Your task to perform on an android device: Search for bose soundlink mini on newegg, select the first entry, and add it to the cart. Image 0: 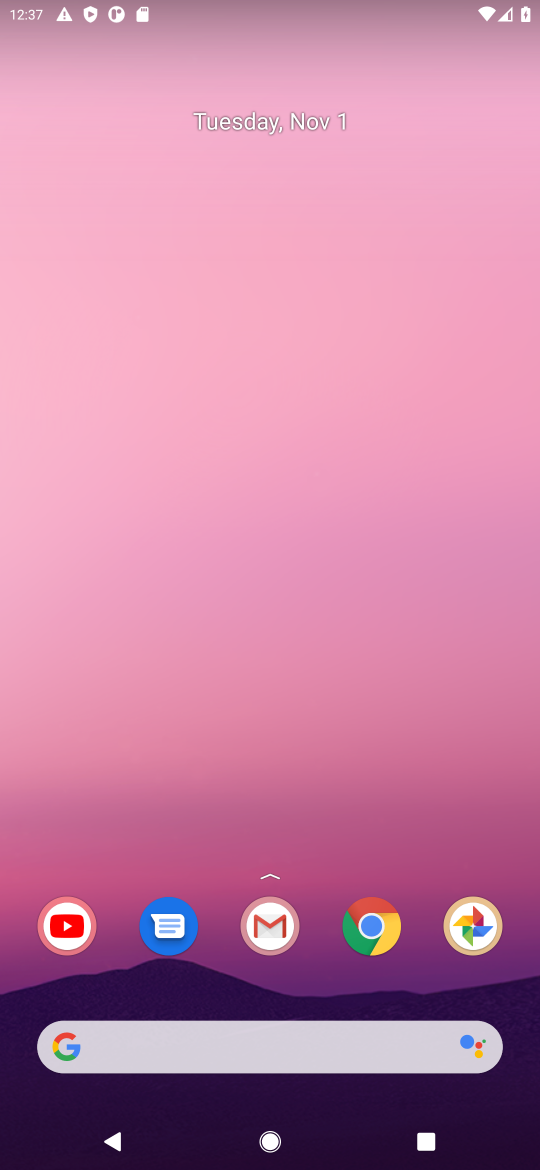
Step 0: click (367, 927)
Your task to perform on an android device: Search for bose soundlink mini on newegg, select the first entry, and add it to the cart. Image 1: 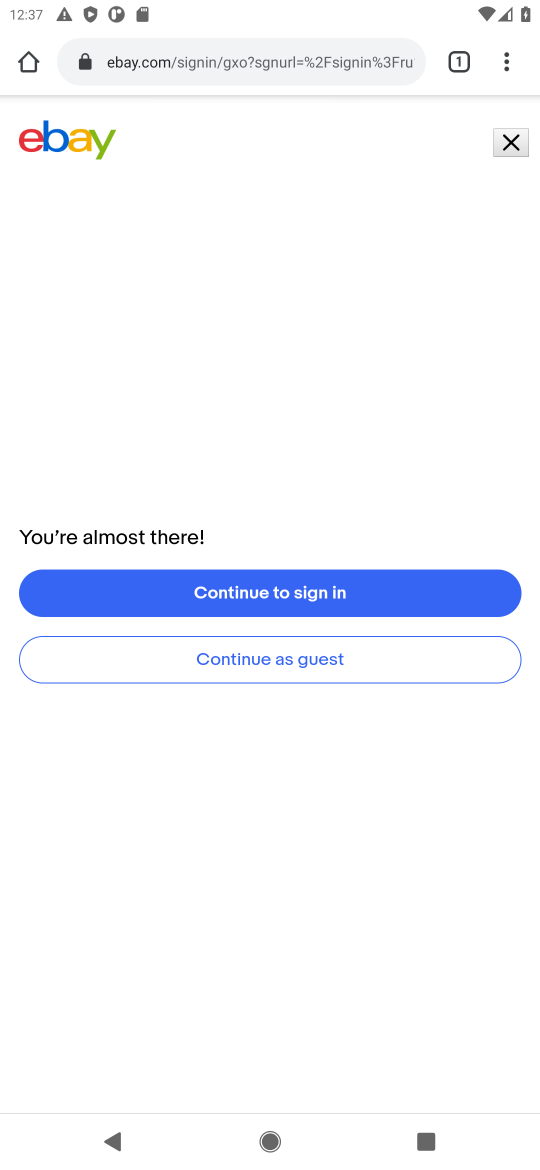
Step 1: click (515, 146)
Your task to perform on an android device: Search for bose soundlink mini on newegg, select the first entry, and add it to the cart. Image 2: 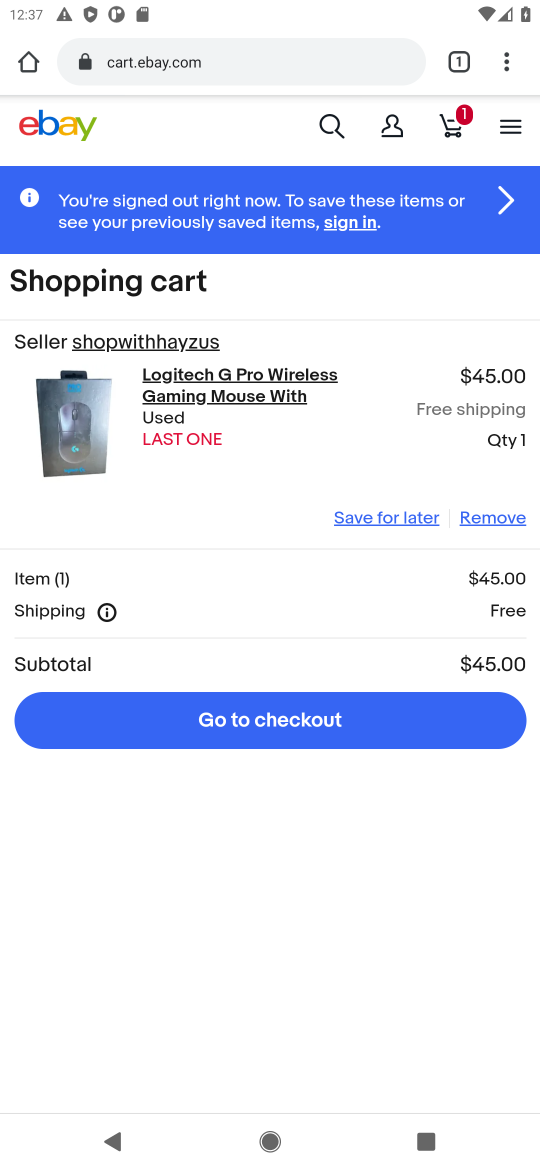
Step 2: click (289, 51)
Your task to perform on an android device: Search for bose soundlink mini on newegg, select the first entry, and add it to the cart. Image 3: 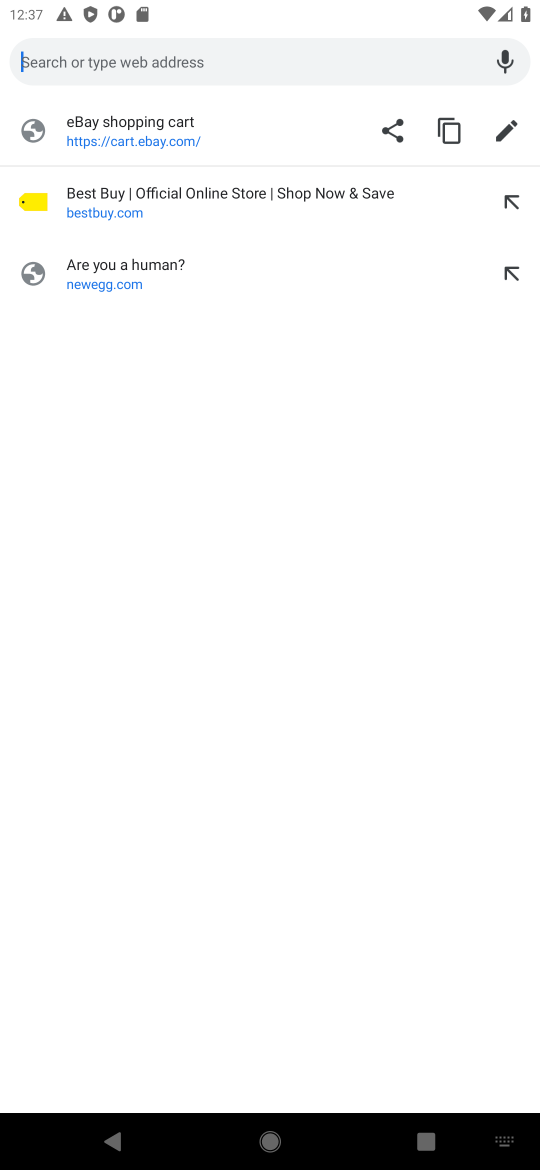
Step 3: type "newegg"
Your task to perform on an android device: Search for bose soundlink mini on newegg, select the first entry, and add it to the cart. Image 4: 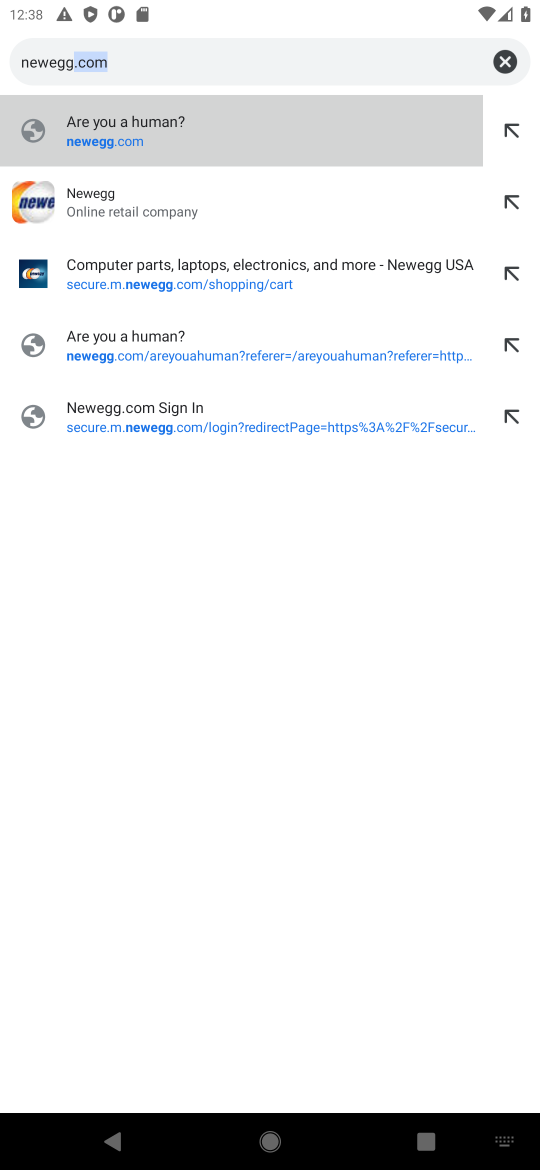
Step 4: press enter
Your task to perform on an android device: Search for bose soundlink mini on newegg, select the first entry, and add it to the cart. Image 5: 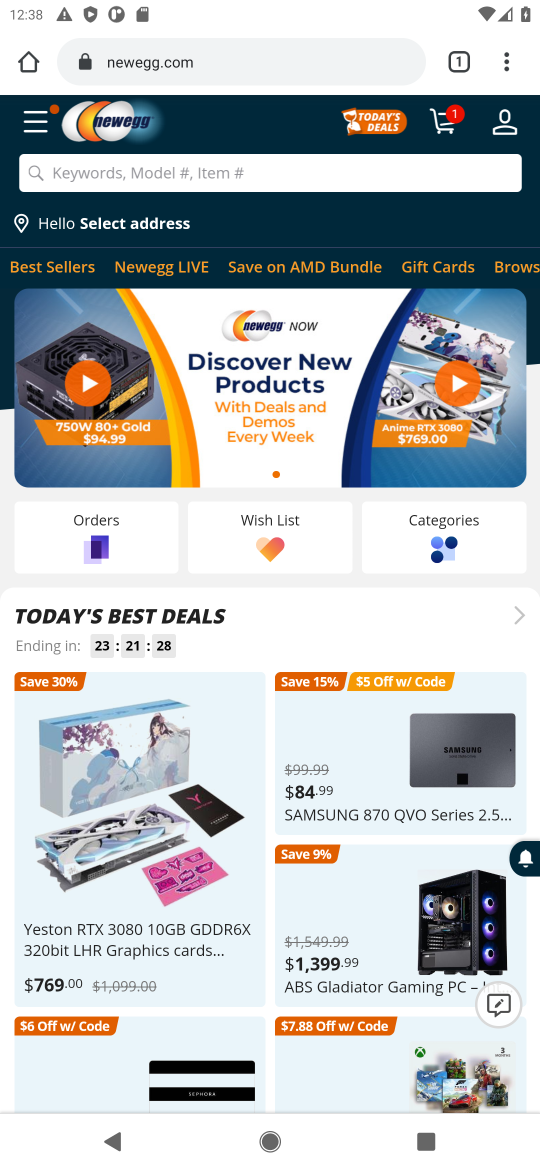
Step 5: click (198, 174)
Your task to perform on an android device: Search for bose soundlink mini on newegg, select the first entry, and add it to the cart. Image 6: 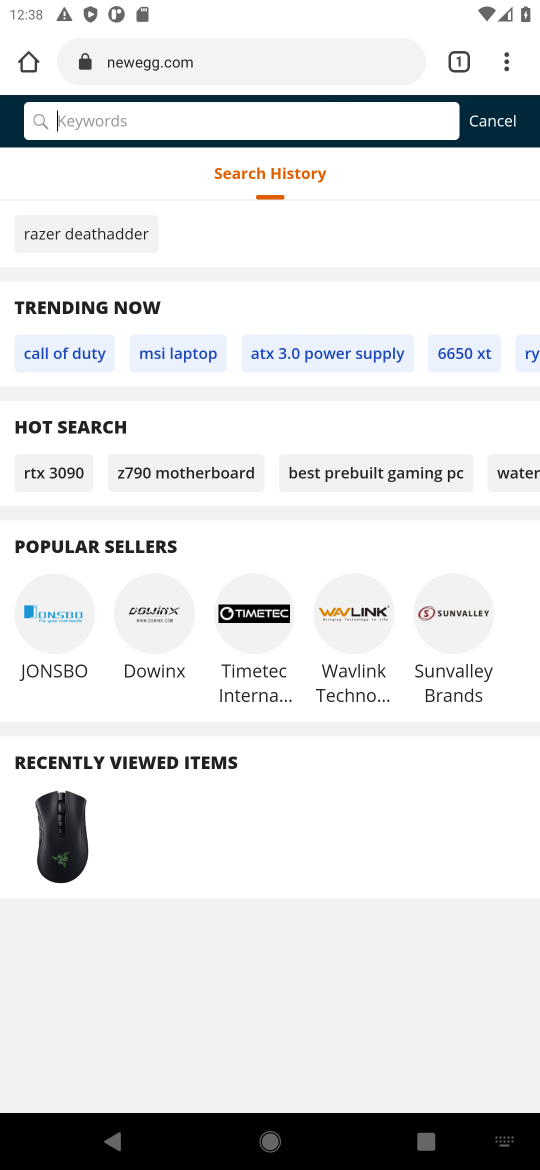
Step 6: type "soundlink mini"
Your task to perform on an android device: Search for bose soundlink mini on newegg, select the first entry, and add it to the cart. Image 7: 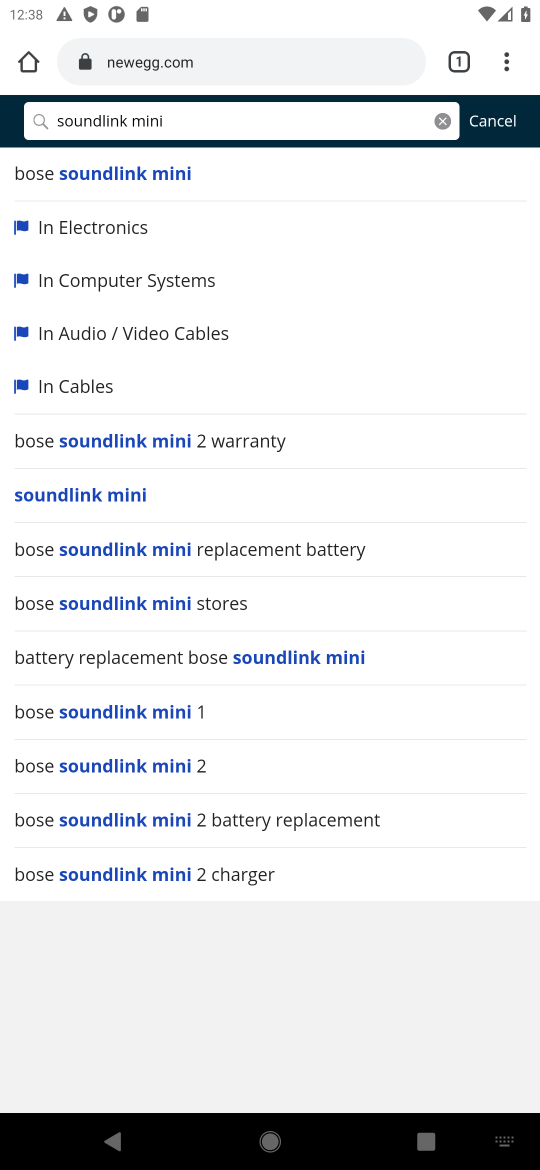
Step 7: press enter
Your task to perform on an android device: Search for bose soundlink mini on newegg, select the first entry, and add it to the cart. Image 8: 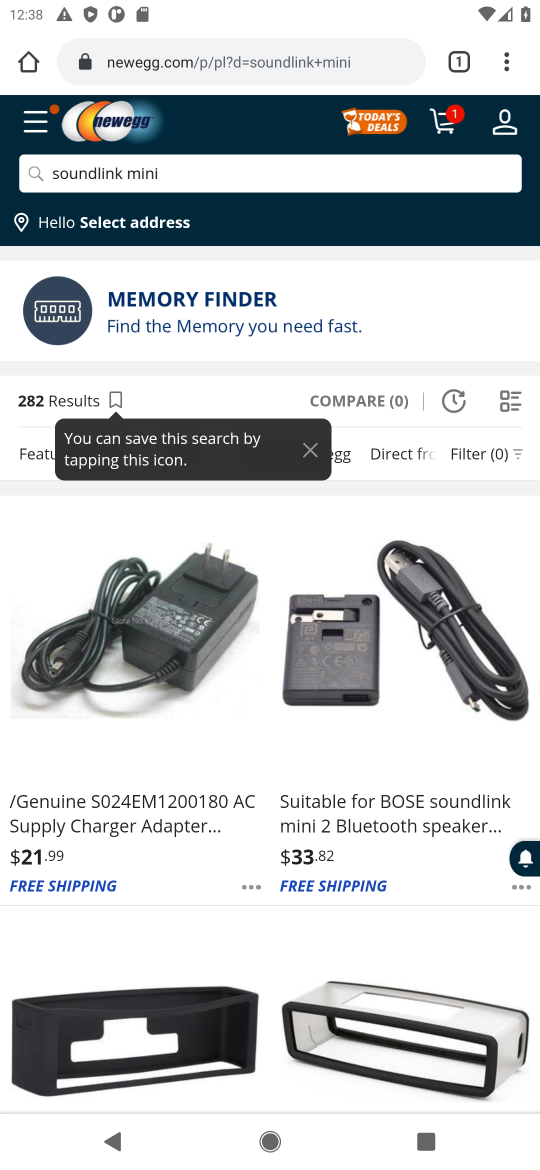
Step 8: click (151, 726)
Your task to perform on an android device: Search for bose soundlink mini on newegg, select the first entry, and add it to the cart. Image 9: 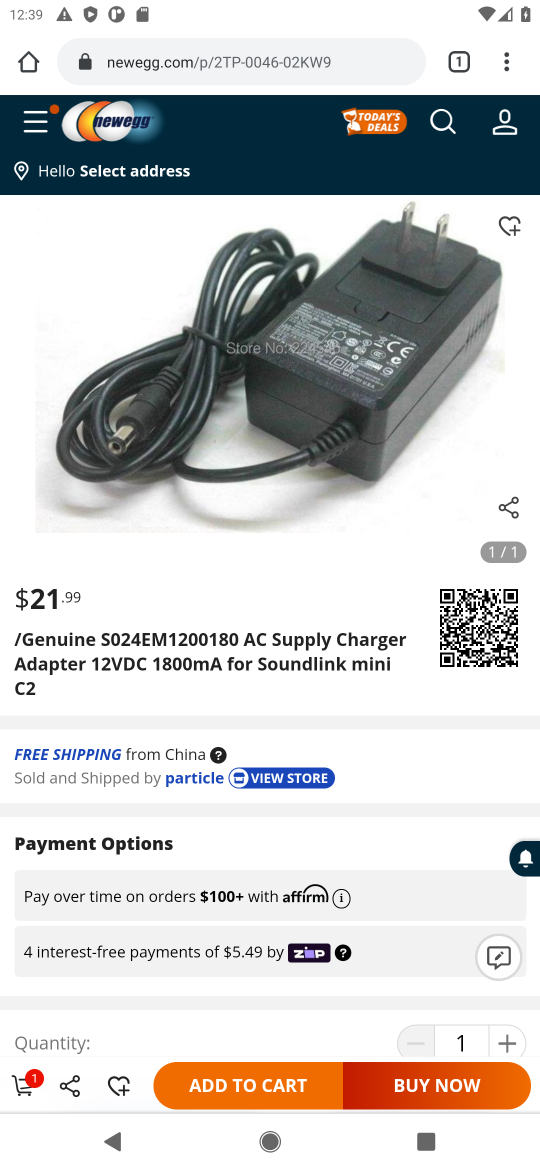
Step 9: click (266, 1082)
Your task to perform on an android device: Search for bose soundlink mini on newegg, select the first entry, and add it to the cart. Image 10: 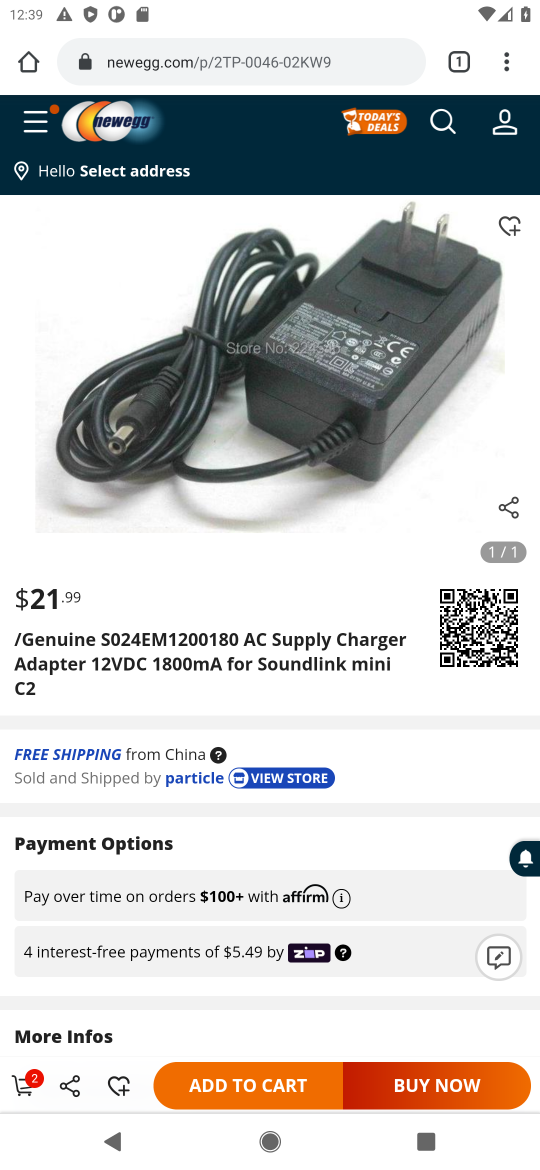
Step 10: task complete